Your task to perform on an android device: Open Google Chrome and open the bookmarks view Image 0: 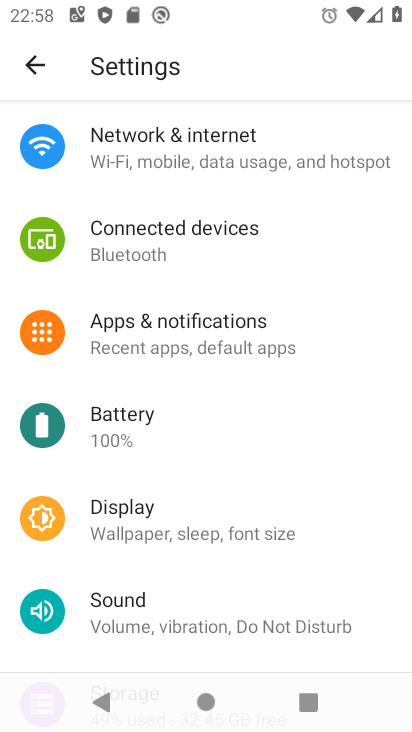
Step 0: press home button
Your task to perform on an android device: Open Google Chrome and open the bookmarks view Image 1: 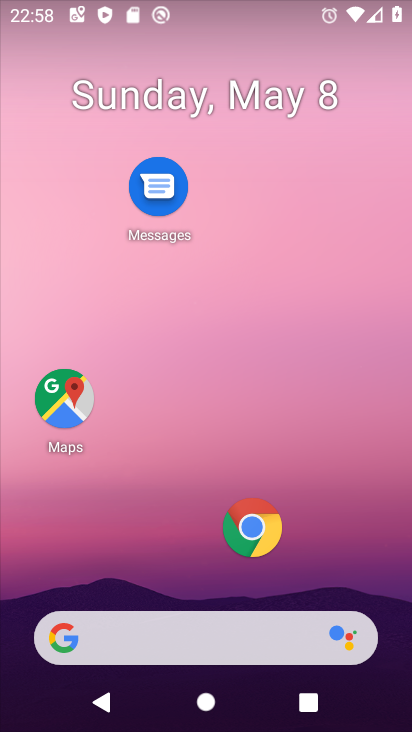
Step 1: click (255, 533)
Your task to perform on an android device: Open Google Chrome and open the bookmarks view Image 2: 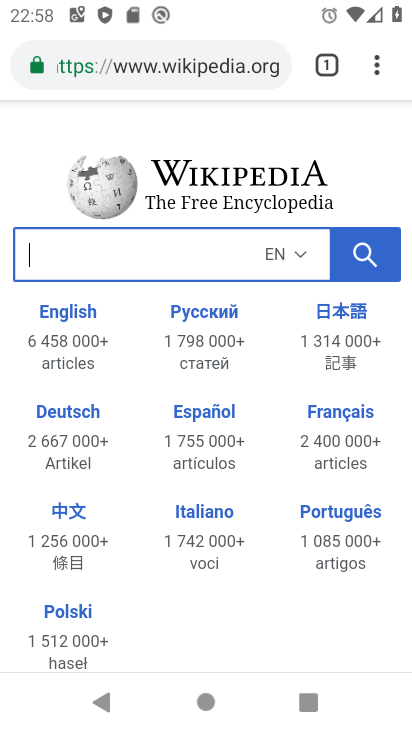
Step 2: click (372, 58)
Your task to perform on an android device: Open Google Chrome and open the bookmarks view Image 3: 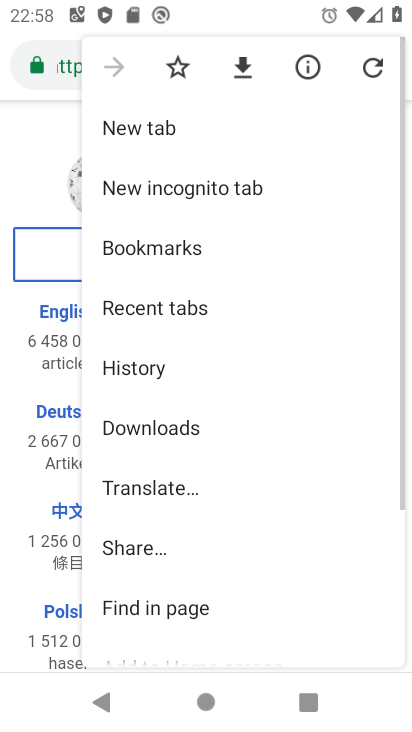
Step 3: click (165, 250)
Your task to perform on an android device: Open Google Chrome and open the bookmarks view Image 4: 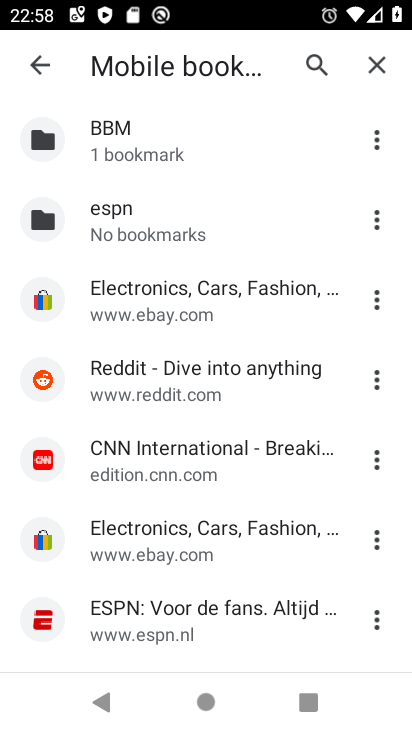
Step 4: drag from (164, 421) to (176, 116)
Your task to perform on an android device: Open Google Chrome and open the bookmarks view Image 5: 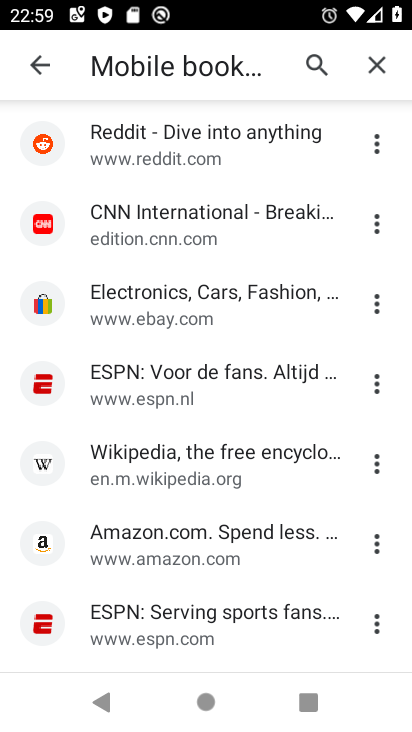
Step 5: click (153, 461)
Your task to perform on an android device: Open Google Chrome and open the bookmarks view Image 6: 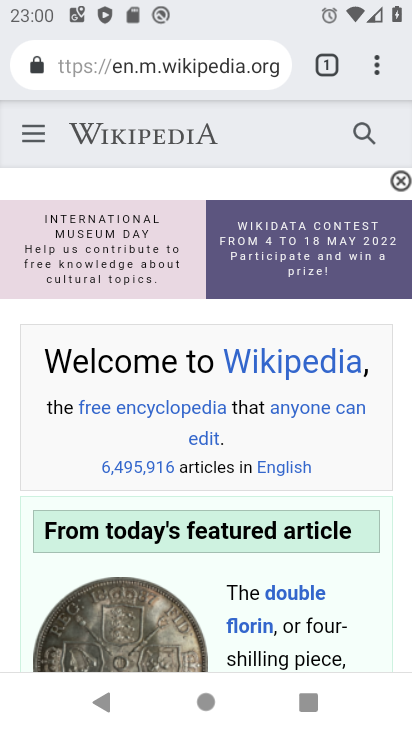
Step 6: task complete